Your task to perform on an android device: Go to Reddit.com Image 0: 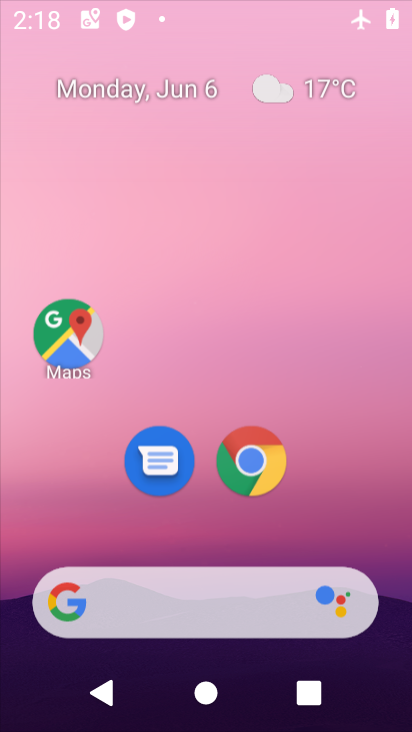
Step 0: press back button
Your task to perform on an android device: Go to Reddit.com Image 1: 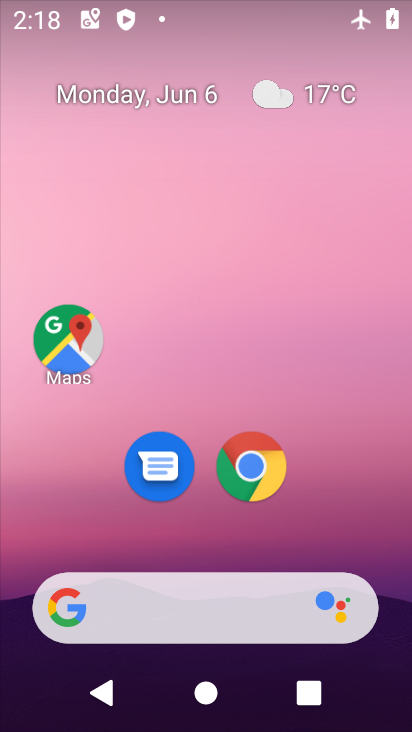
Step 1: drag from (349, 663) to (160, 160)
Your task to perform on an android device: Go to Reddit.com Image 2: 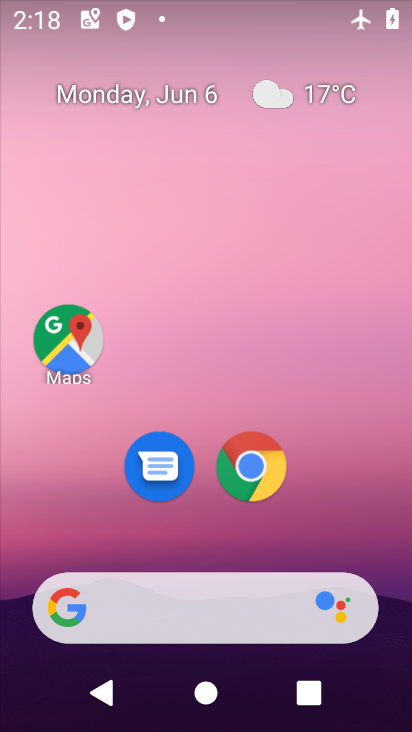
Step 2: drag from (307, 528) to (129, 4)
Your task to perform on an android device: Go to Reddit.com Image 3: 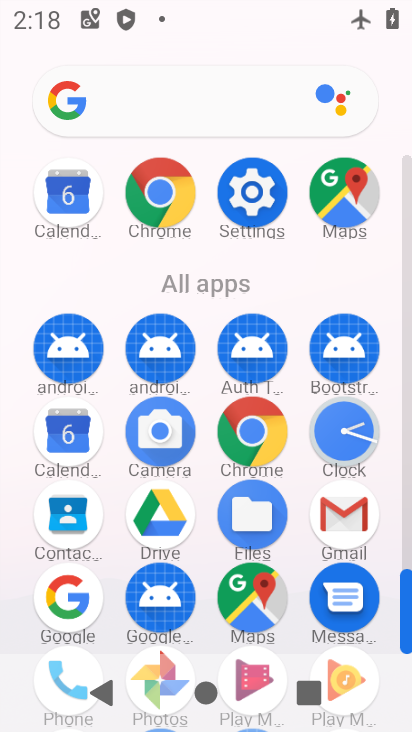
Step 3: click (246, 211)
Your task to perform on an android device: Go to Reddit.com Image 4: 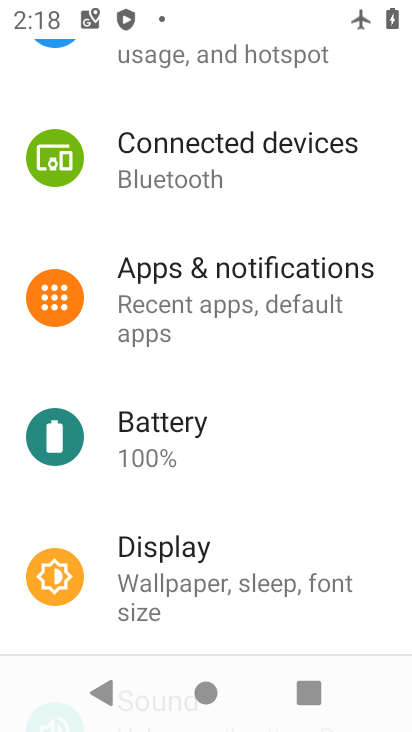
Step 4: drag from (197, 208) to (206, 572)
Your task to perform on an android device: Go to Reddit.com Image 5: 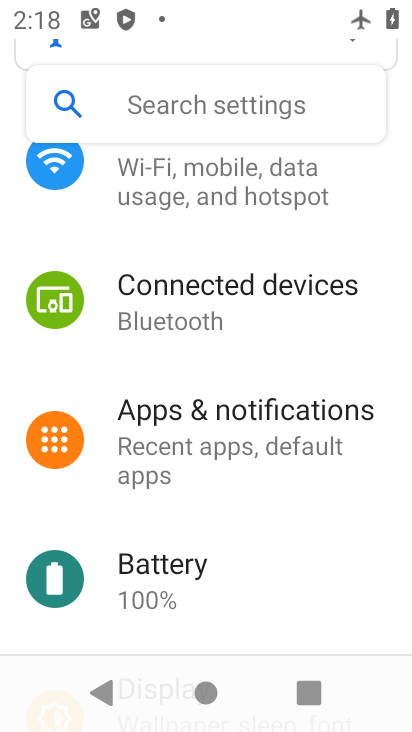
Step 5: drag from (206, 193) to (250, 560)
Your task to perform on an android device: Go to Reddit.com Image 6: 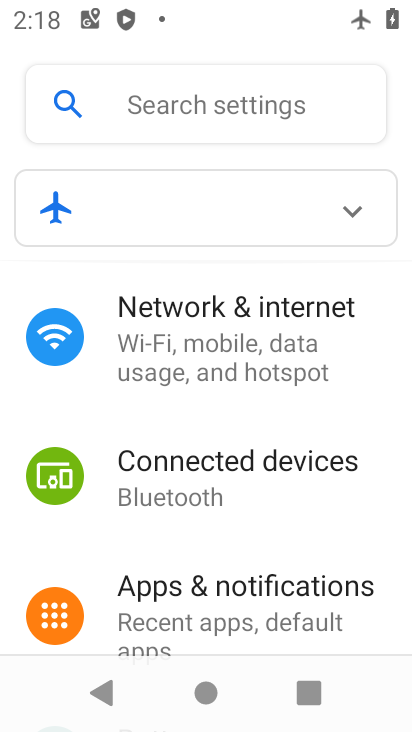
Step 6: drag from (243, 238) to (253, 617)
Your task to perform on an android device: Go to Reddit.com Image 7: 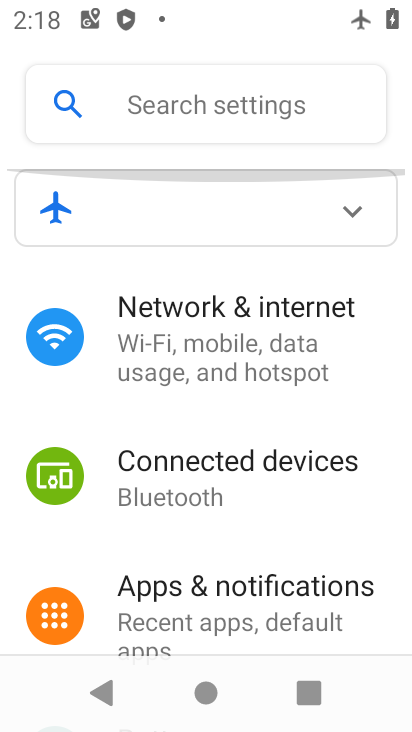
Step 7: drag from (194, 290) to (244, 639)
Your task to perform on an android device: Go to Reddit.com Image 8: 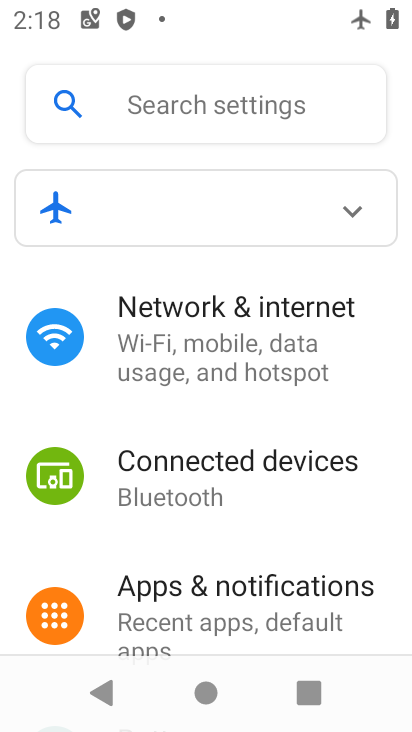
Step 8: click (205, 340)
Your task to perform on an android device: Go to Reddit.com Image 9: 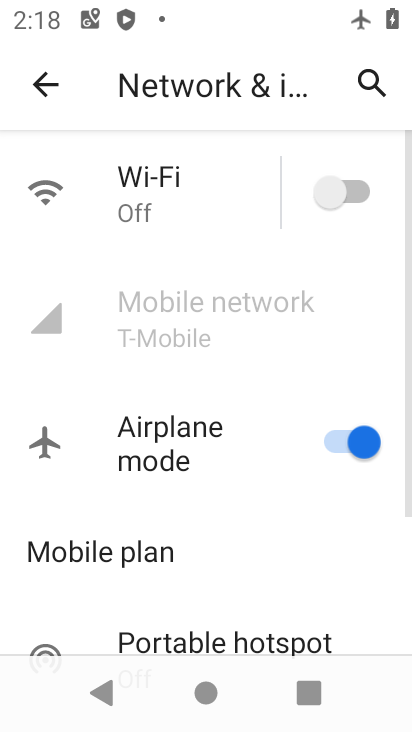
Step 9: click (339, 186)
Your task to perform on an android device: Go to Reddit.com Image 10: 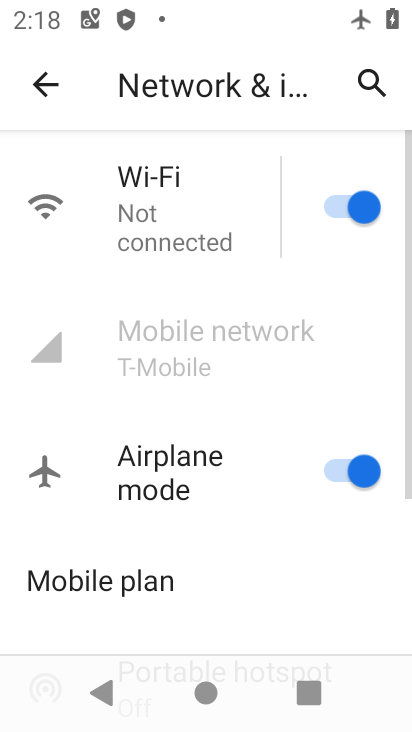
Step 10: click (370, 465)
Your task to perform on an android device: Go to Reddit.com Image 11: 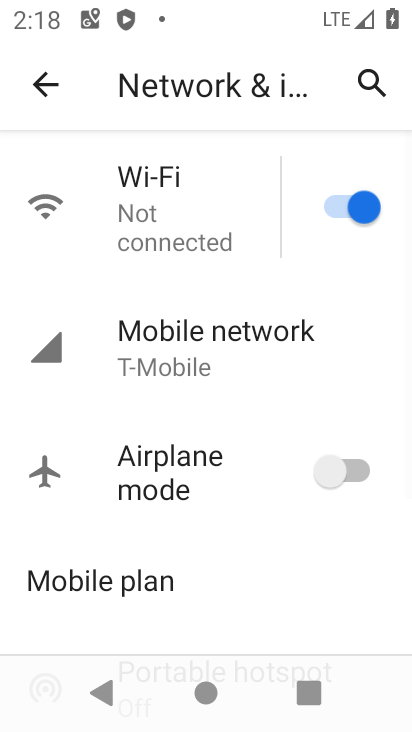
Step 11: press back button
Your task to perform on an android device: Go to Reddit.com Image 12: 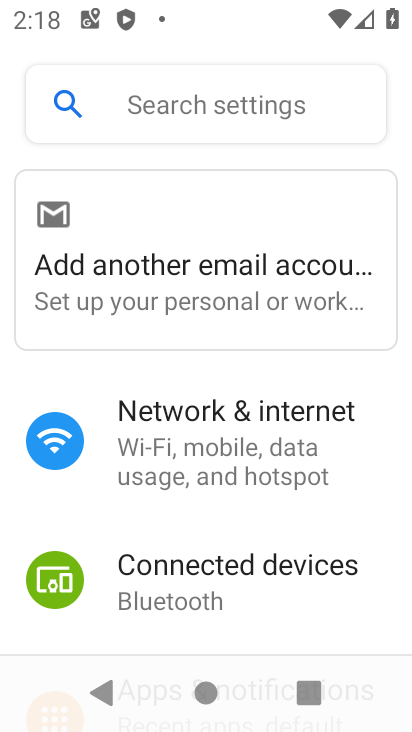
Step 12: press home button
Your task to perform on an android device: Go to Reddit.com Image 13: 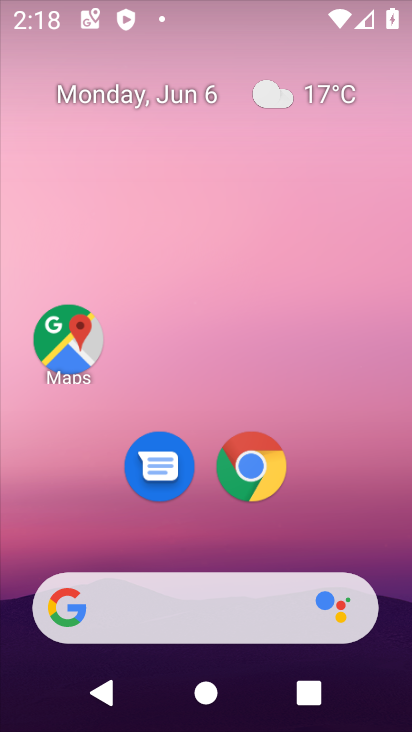
Step 13: drag from (257, 675) to (160, 137)
Your task to perform on an android device: Go to Reddit.com Image 14: 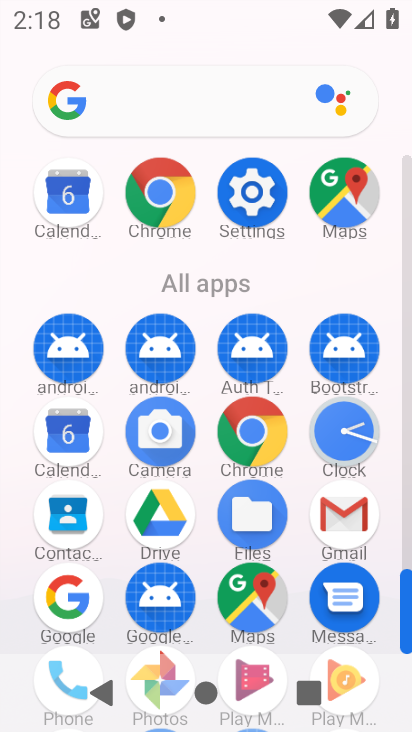
Step 14: click (164, 184)
Your task to perform on an android device: Go to Reddit.com Image 15: 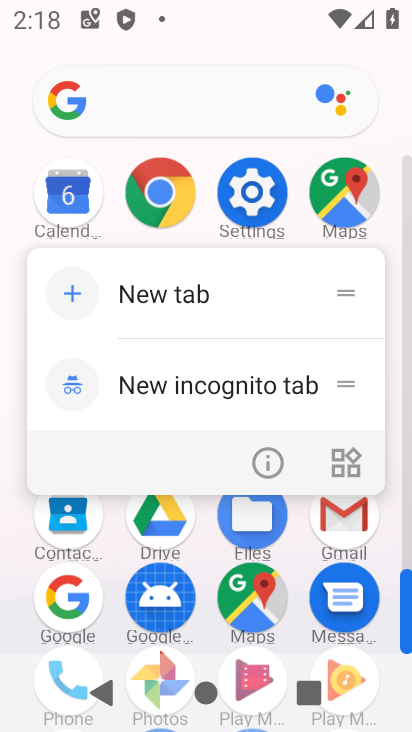
Step 15: click (164, 196)
Your task to perform on an android device: Go to Reddit.com Image 16: 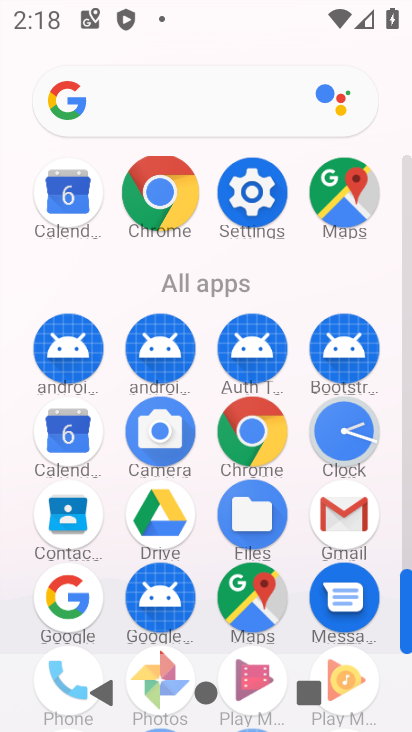
Step 16: click (164, 196)
Your task to perform on an android device: Go to Reddit.com Image 17: 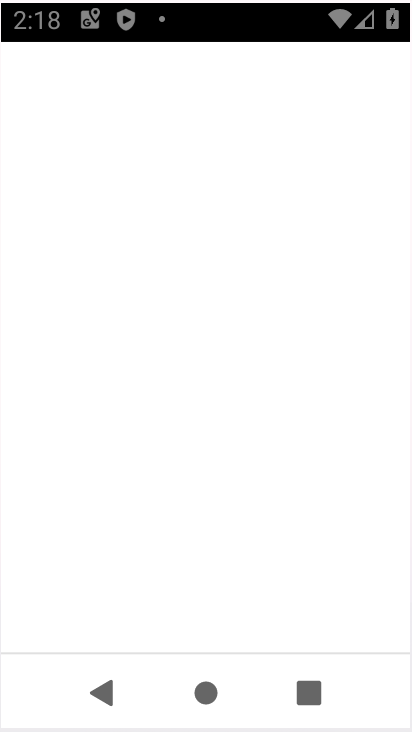
Step 17: click (165, 196)
Your task to perform on an android device: Go to Reddit.com Image 18: 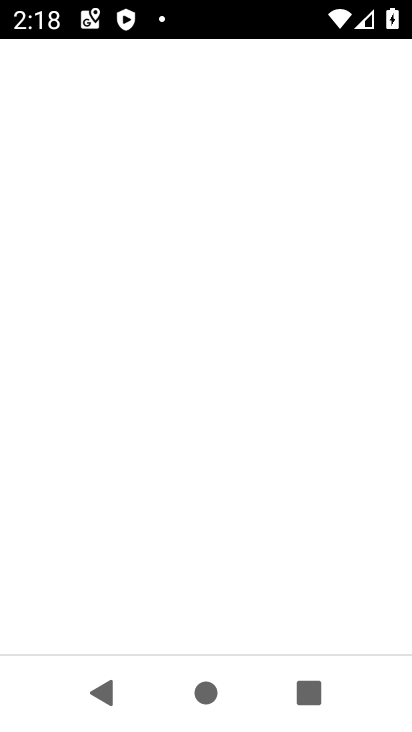
Step 18: click (166, 196)
Your task to perform on an android device: Go to Reddit.com Image 19: 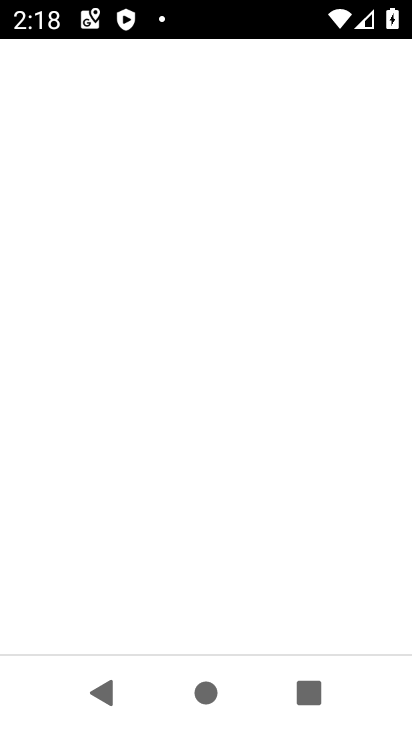
Step 19: click (166, 196)
Your task to perform on an android device: Go to Reddit.com Image 20: 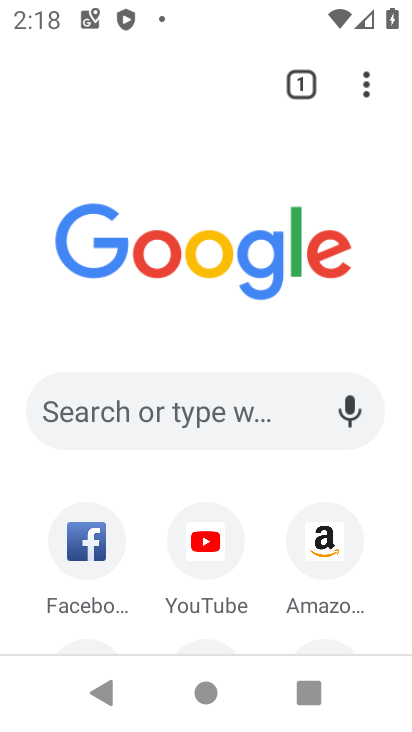
Step 20: click (68, 407)
Your task to perform on an android device: Go to Reddit.com Image 21: 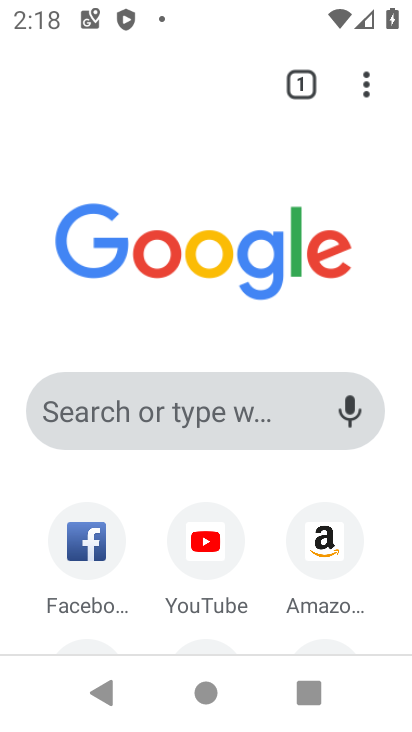
Step 21: click (80, 393)
Your task to perform on an android device: Go to Reddit.com Image 22: 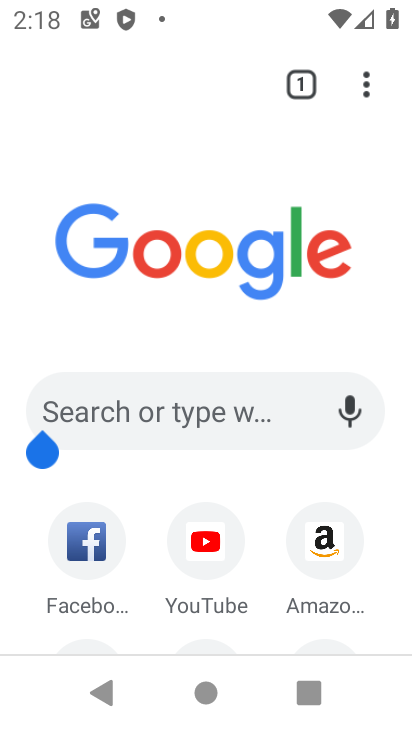
Step 22: click (80, 392)
Your task to perform on an android device: Go to Reddit.com Image 23: 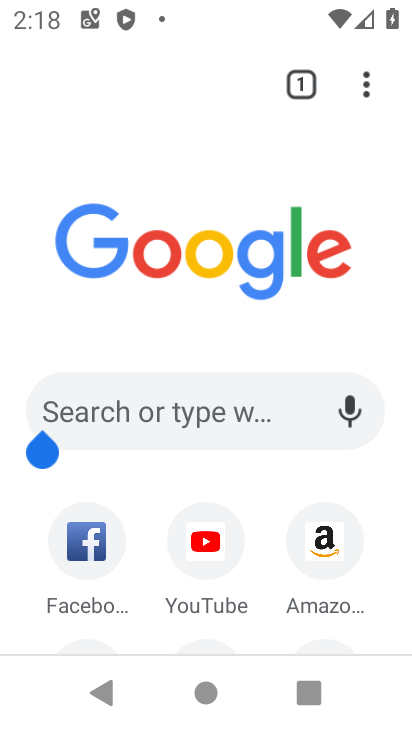
Step 23: click (72, 400)
Your task to perform on an android device: Go to Reddit.com Image 24: 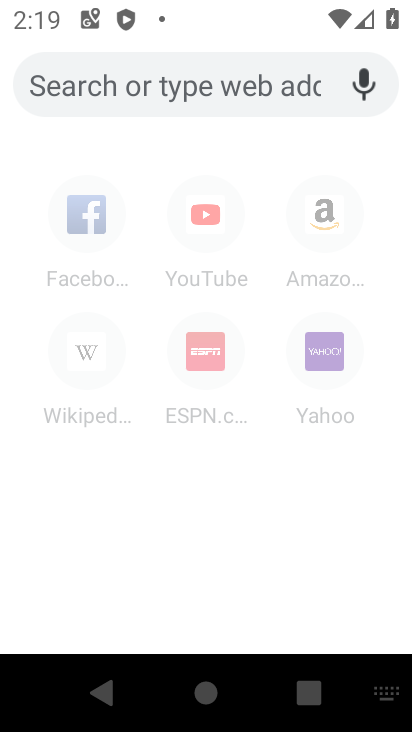
Step 24: type "reddit.com"
Your task to perform on an android device: Go to Reddit.com Image 25: 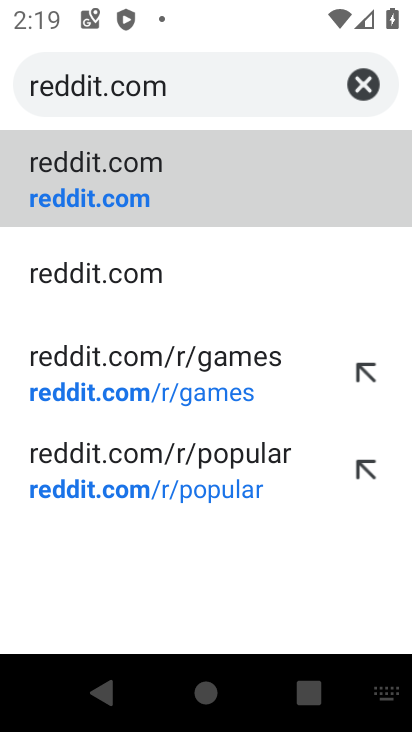
Step 25: click (65, 191)
Your task to perform on an android device: Go to Reddit.com Image 26: 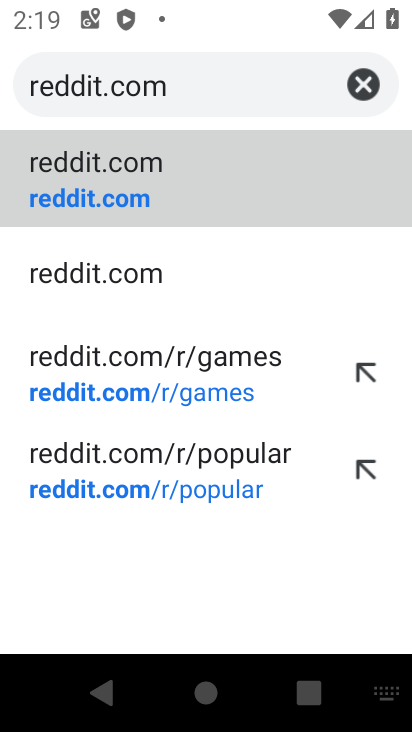
Step 26: click (69, 188)
Your task to perform on an android device: Go to Reddit.com Image 27: 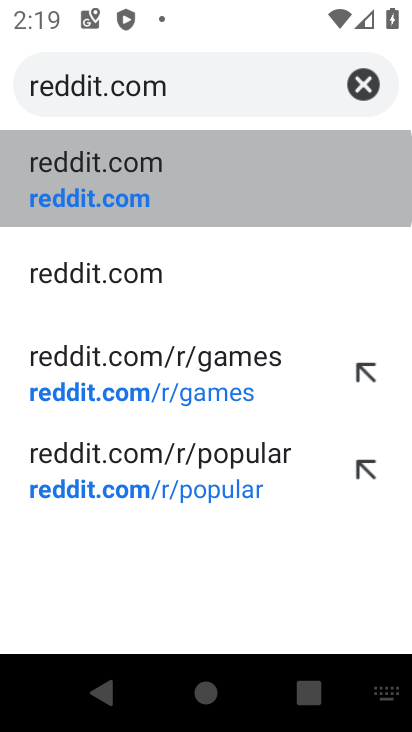
Step 27: click (90, 180)
Your task to perform on an android device: Go to Reddit.com Image 28: 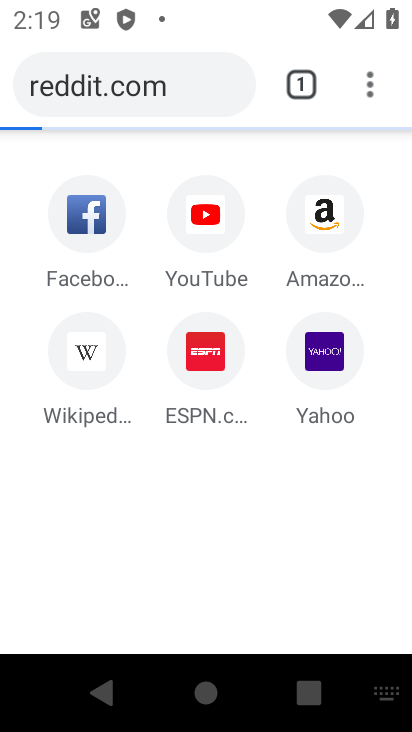
Step 28: click (90, 180)
Your task to perform on an android device: Go to Reddit.com Image 29: 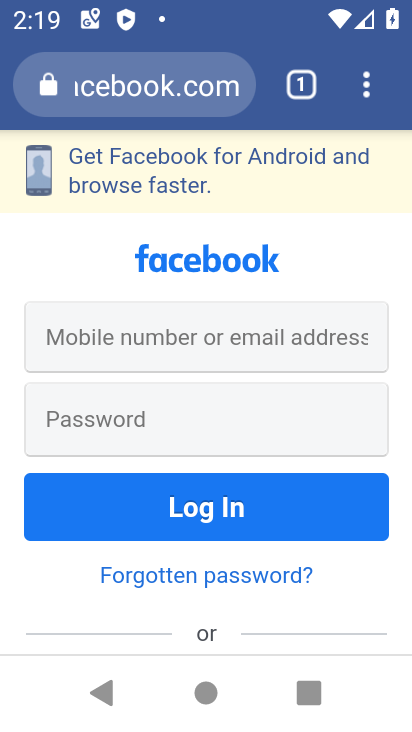
Step 29: task complete